Your task to perform on an android device: Go to Google maps Image 0: 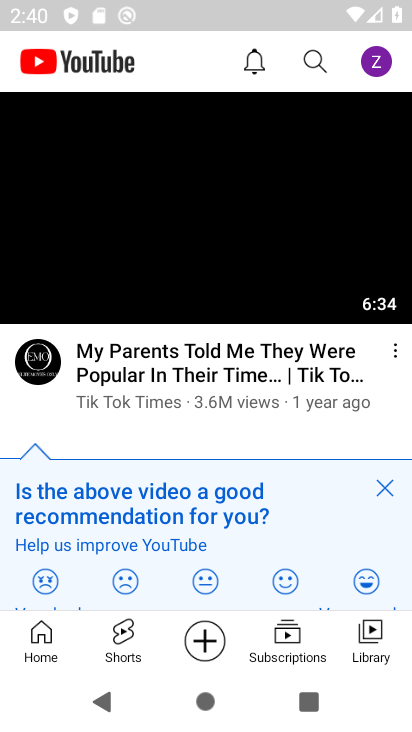
Step 0: press home button
Your task to perform on an android device: Go to Google maps Image 1: 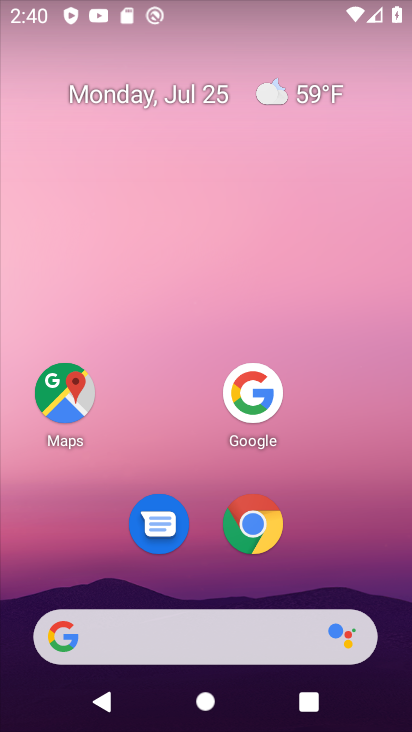
Step 1: click (76, 399)
Your task to perform on an android device: Go to Google maps Image 2: 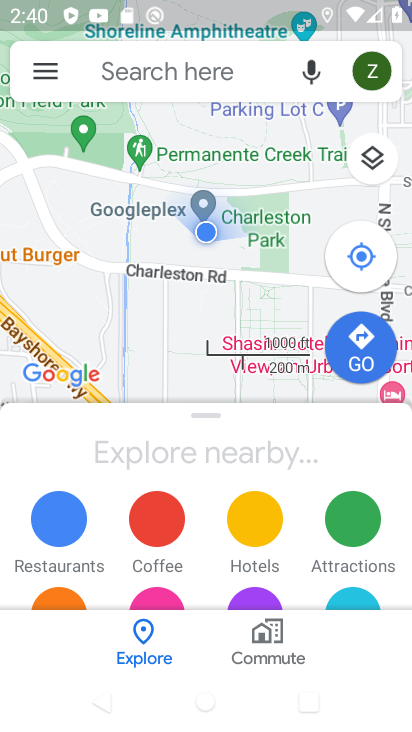
Step 2: task complete